Your task to perform on an android device: toggle notification dots Image 0: 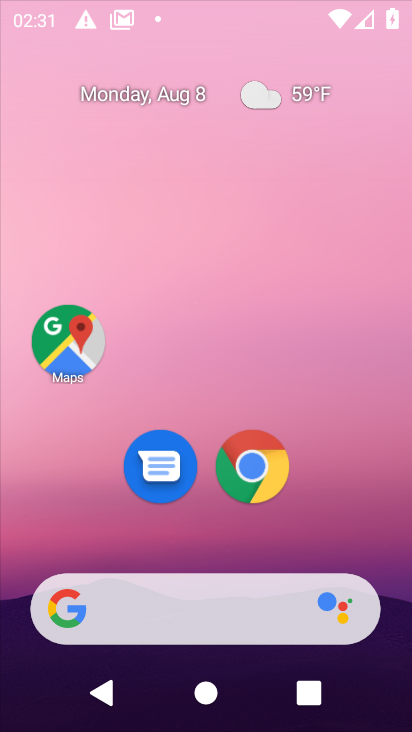
Step 0: press home button
Your task to perform on an android device: toggle notification dots Image 1: 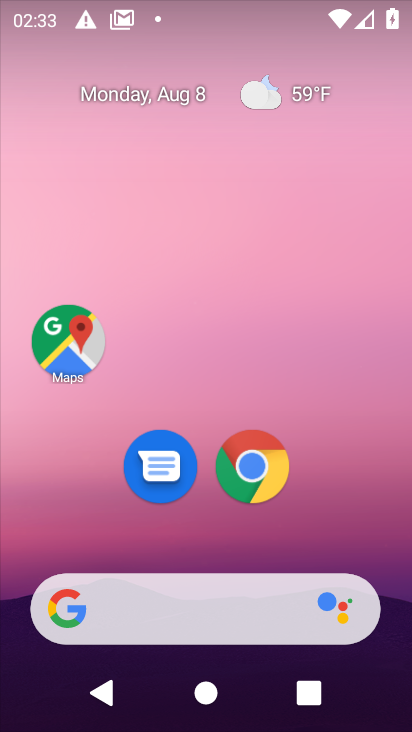
Step 1: drag from (241, 599) to (268, 78)
Your task to perform on an android device: toggle notification dots Image 2: 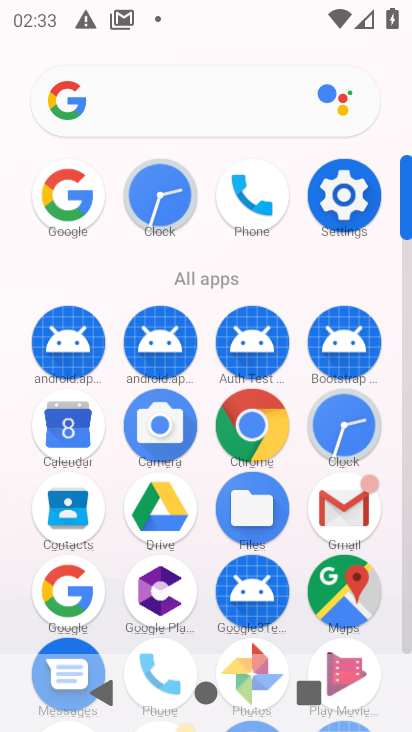
Step 2: click (348, 227)
Your task to perform on an android device: toggle notification dots Image 3: 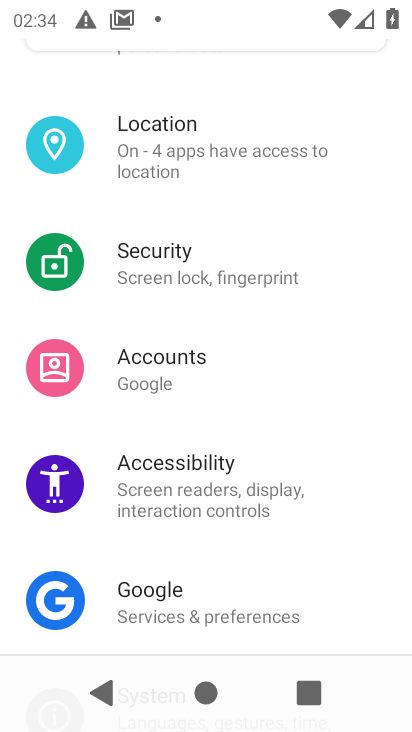
Step 3: drag from (262, 105) to (302, 530)
Your task to perform on an android device: toggle notification dots Image 4: 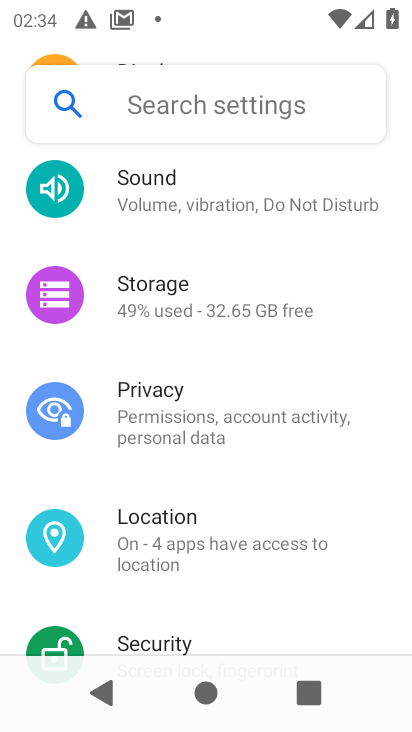
Step 4: drag from (178, 302) to (239, 663)
Your task to perform on an android device: toggle notification dots Image 5: 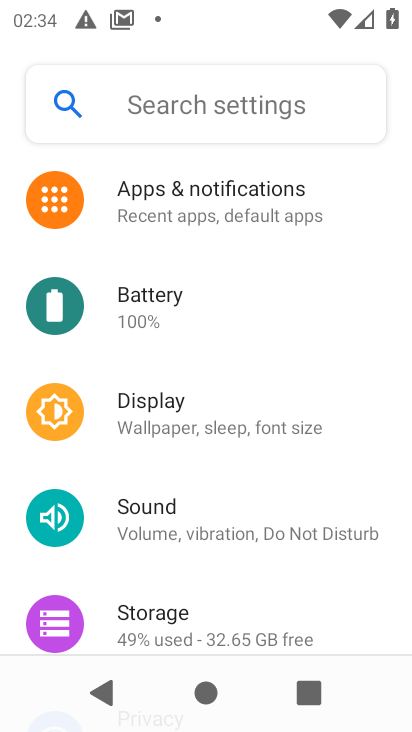
Step 5: click (243, 221)
Your task to perform on an android device: toggle notification dots Image 6: 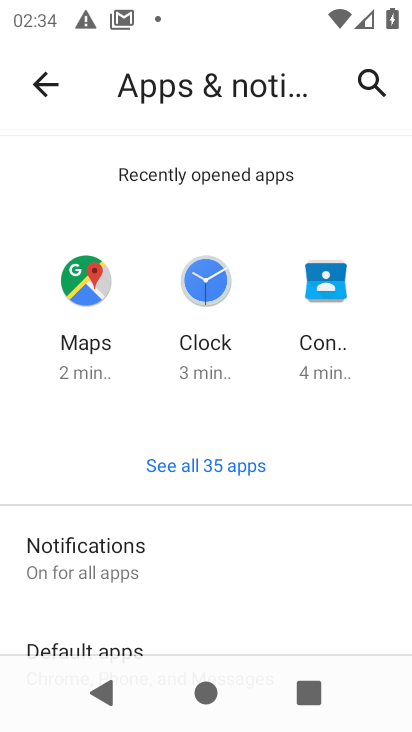
Step 6: click (227, 552)
Your task to perform on an android device: toggle notification dots Image 7: 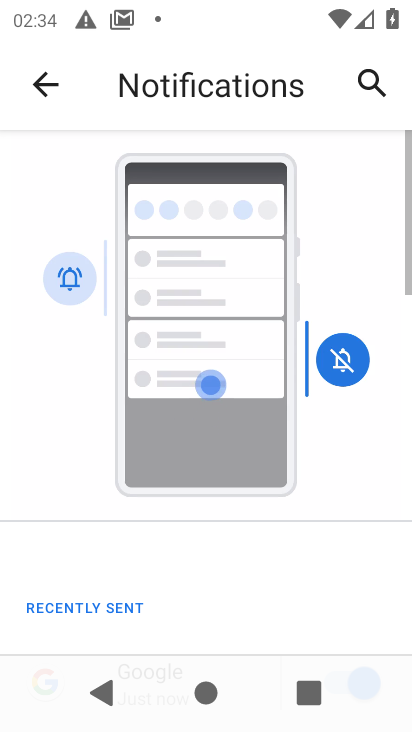
Step 7: drag from (260, 601) to (283, 226)
Your task to perform on an android device: toggle notification dots Image 8: 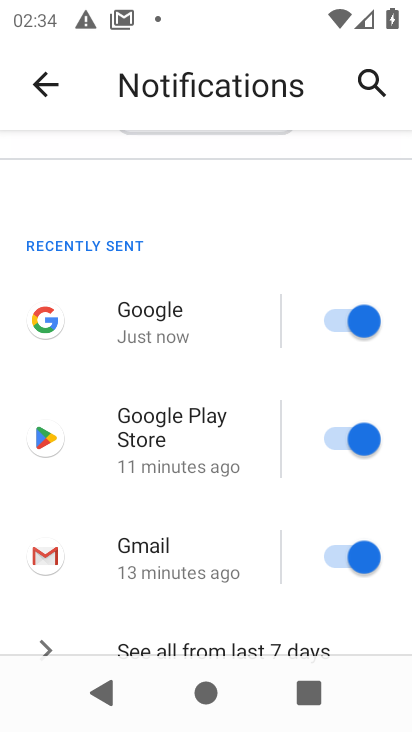
Step 8: drag from (208, 535) to (234, 23)
Your task to perform on an android device: toggle notification dots Image 9: 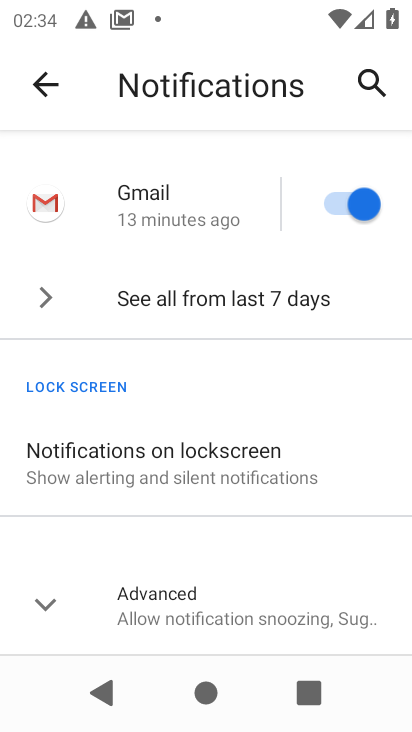
Step 9: click (259, 586)
Your task to perform on an android device: toggle notification dots Image 10: 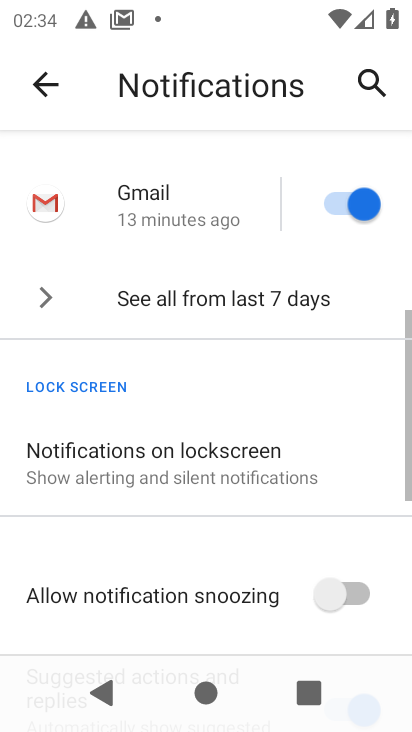
Step 10: drag from (255, 591) to (272, 209)
Your task to perform on an android device: toggle notification dots Image 11: 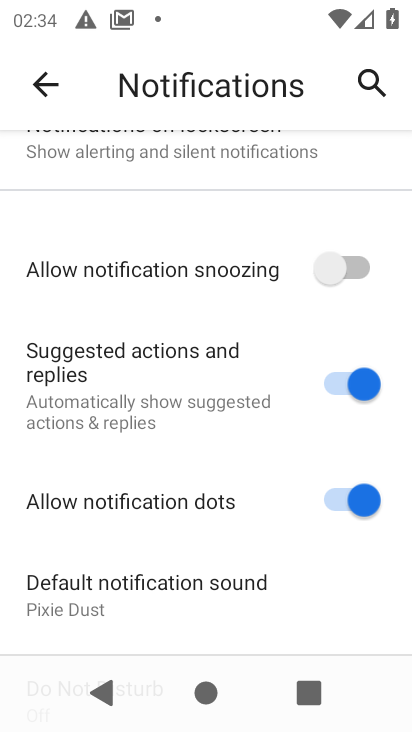
Step 11: click (361, 507)
Your task to perform on an android device: toggle notification dots Image 12: 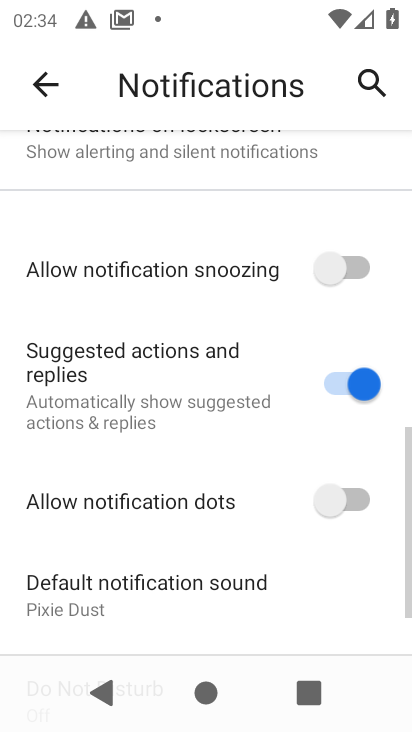
Step 12: task complete